Your task to perform on an android device: Go to Wikipedia Image 0: 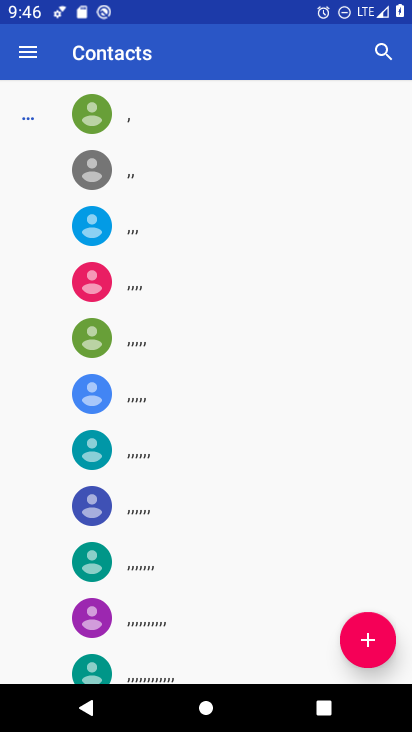
Step 0: press home button
Your task to perform on an android device: Go to Wikipedia Image 1: 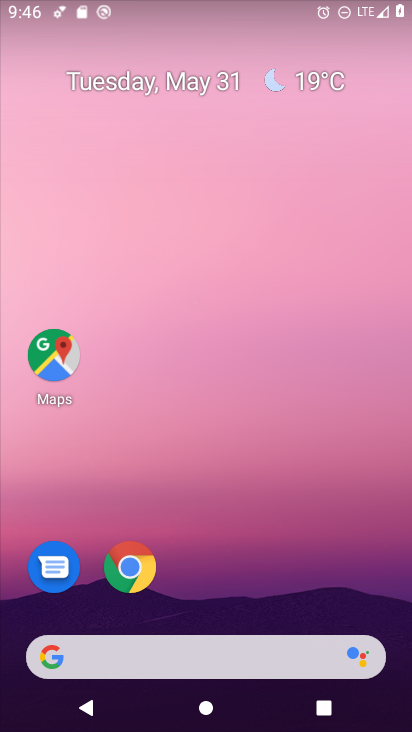
Step 1: click (128, 567)
Your task to perform on an android device: Go to Wikipedia Image 2: 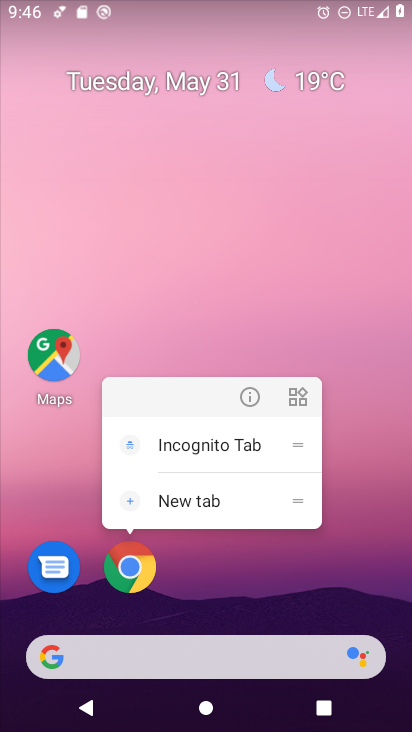
Step 2: click (138, 570)
Your task to perform on an android device: Go to Wikipedia Image 3: 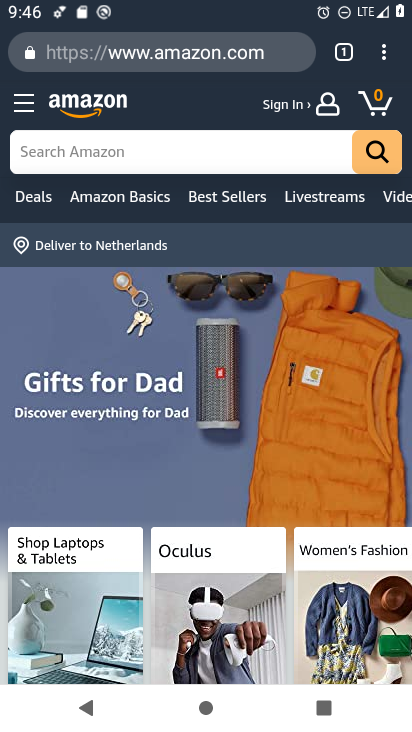
Step 3: click (351, 47)
Your task to perform on an android device: Go to Wikipedia Image 4: 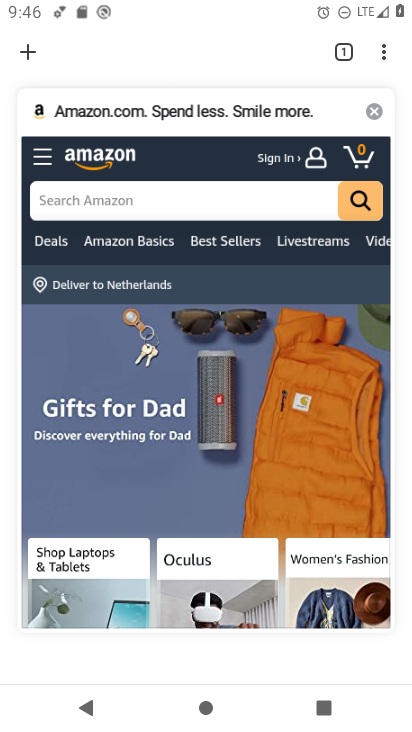
Step 4: click (366, 118)
Your task to perform on an android device: Go to Wikipedia Image 5: 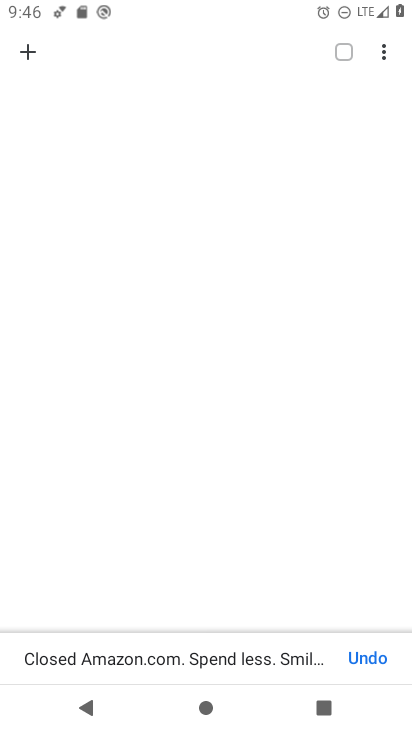
Step 5: click (31, 44)
Your task to perform on an android device: Go to Wikipedia Image 6: 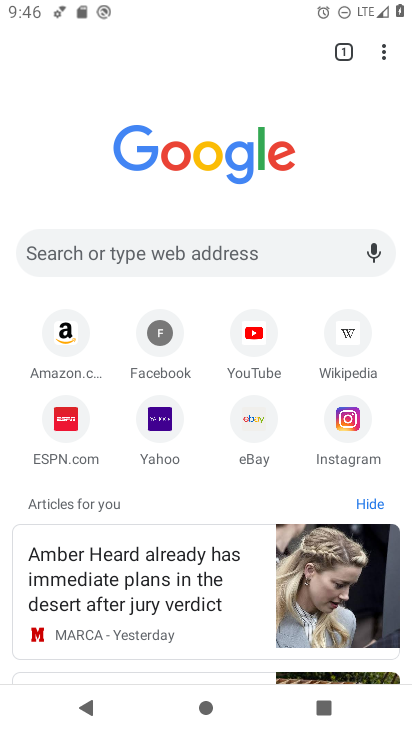
Step 6: click (342, 342)
Your task to perform on an android device: Go to Wikipedia Image 7: 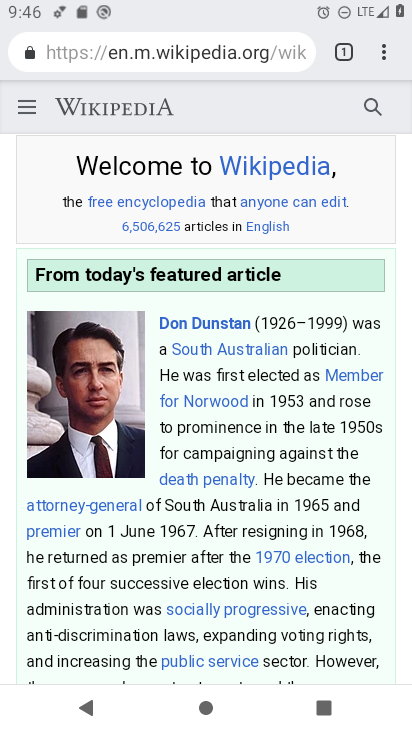
Step 7: task complete